Your task to perform on an android device: turn notification dots on Image 0: 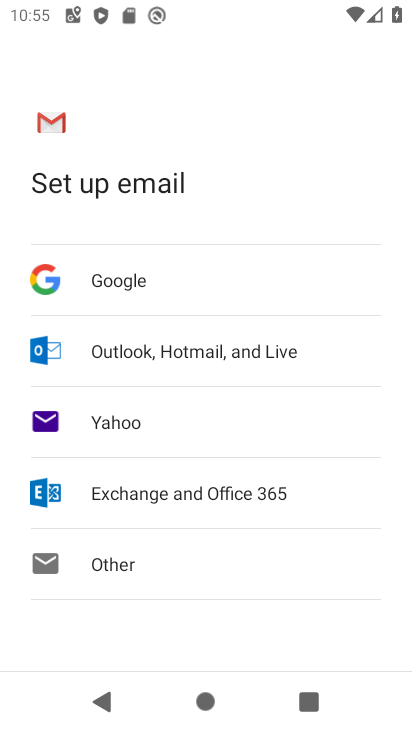
Step 0: press home button
Your task to perform on an android device: turn notification dots on Image 1: 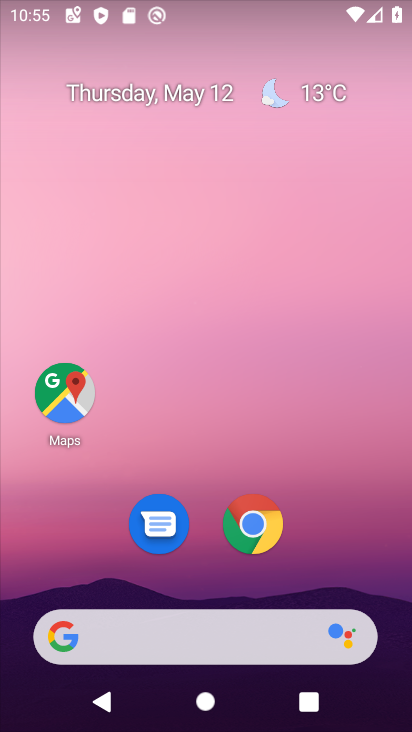
Step 1: drag from (203, 498) to (219, 39)
Your task to perform on an android device: turn notification dots on Image 2: 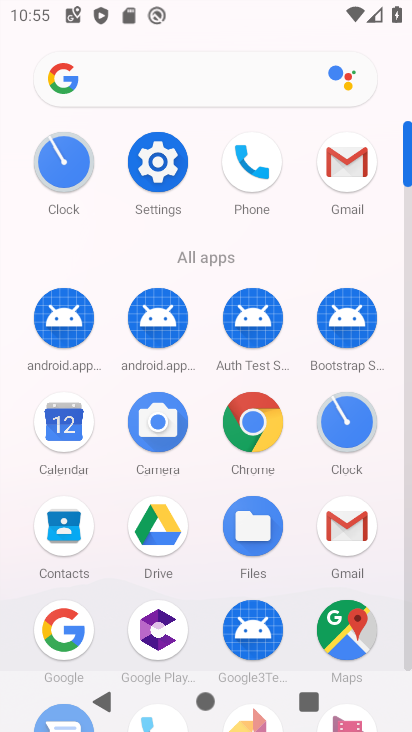
Step 2: click (158, 141)
Your task to perform on an android device: turn notification dots on Image 3: 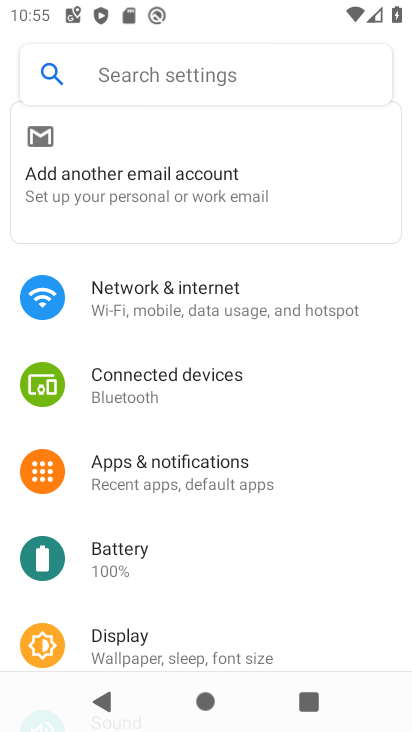
Step 3: click (185, 482)
Your task to perform on an android device: turn notification dots on Image 4: 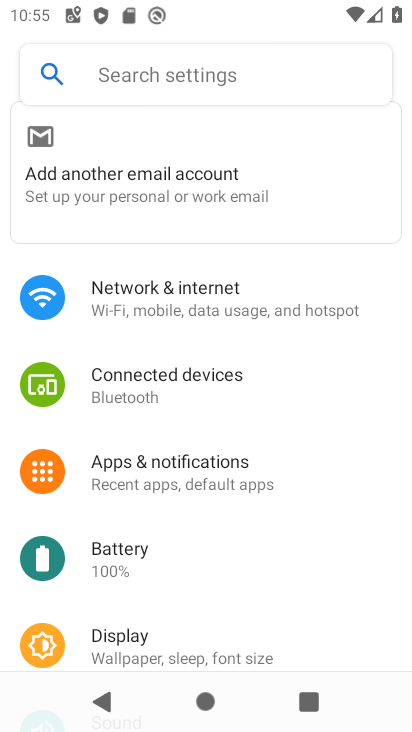
Step 4: click (267, 473)
Your task to perform on an android device: turn notification dots on Image 5: 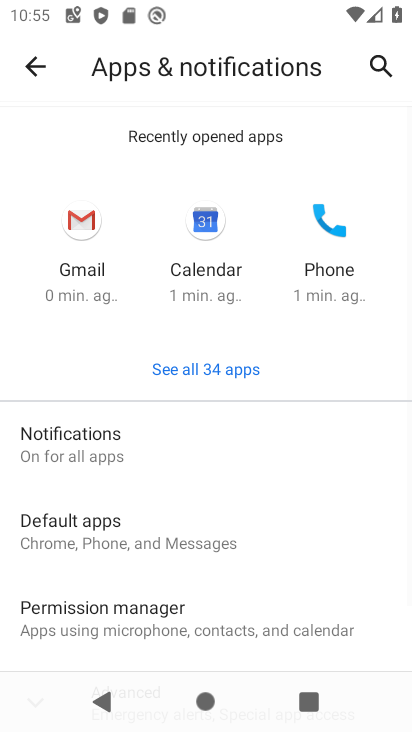
Step 5: click (211, 438)
Your task to perform on an android device: turn notification dots on Image 6: 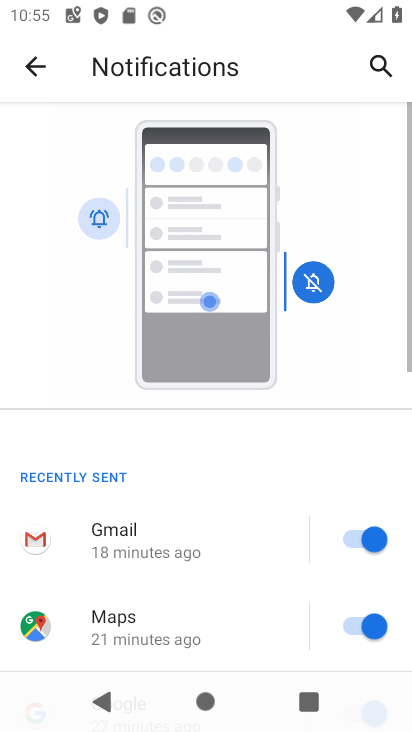
Step 6: drag from (204, 548) to (254, 47)
Your task to perform on an android device: turn notification dots on Image 7: 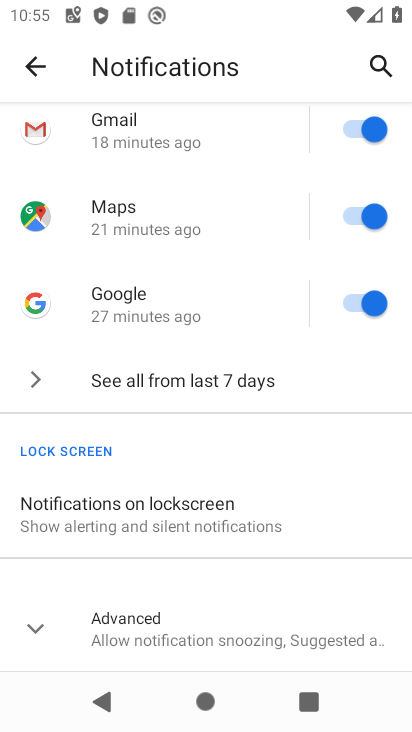
Step 7: click (30, 622)
Your task to perform on an android device: turn notification dots on Image 8: 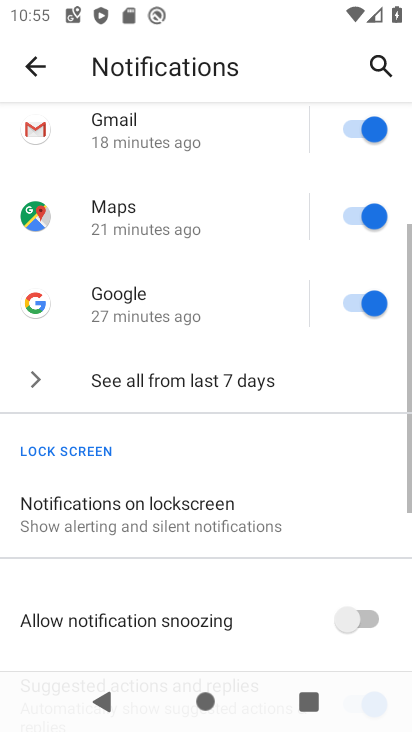
Step 8: drag from (216, 554) to (277, 240)
Your task to perform on an android device: turn notification dots on Image 9: 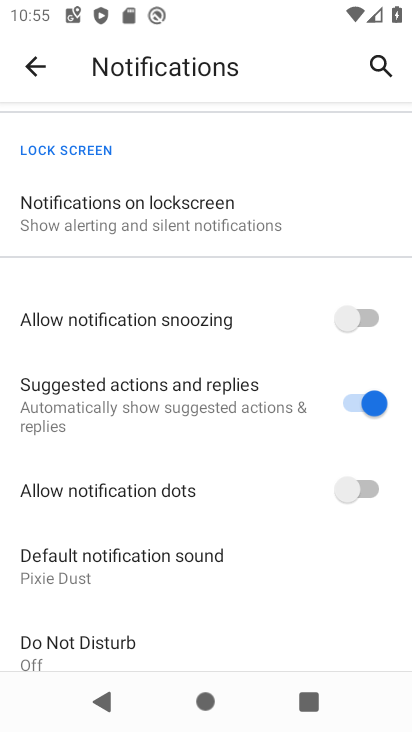
Step 9: click (354, 484)
Your task to perform on an android device: turn notification dots on Image 10: 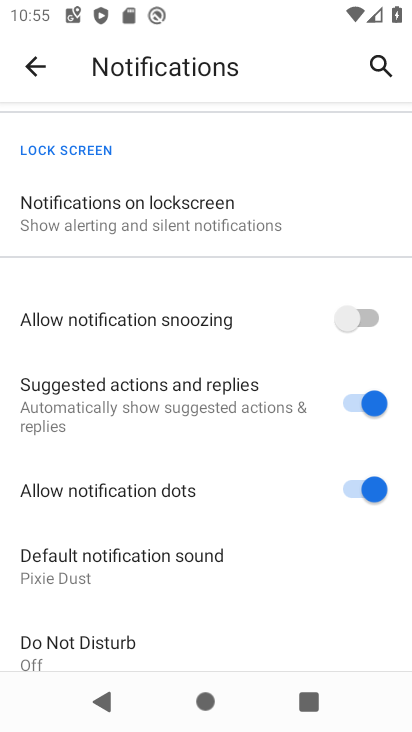
Step 10: task complete